Your task to perform on an android device: open device folders in google photos Image 0: 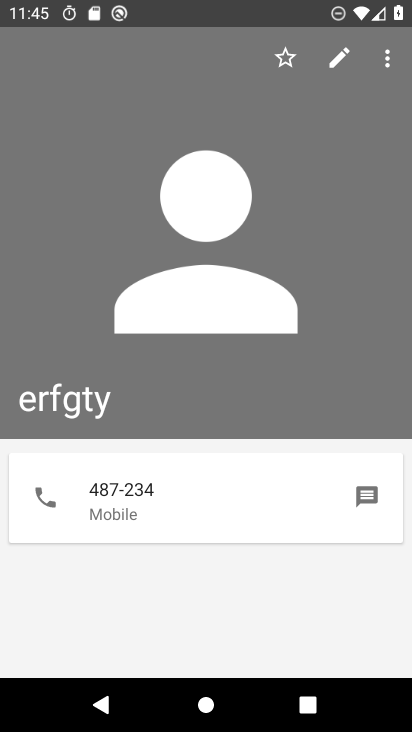
Step 0: press home button
Your task to perform on an android device: open device folders in google photos Image 1: 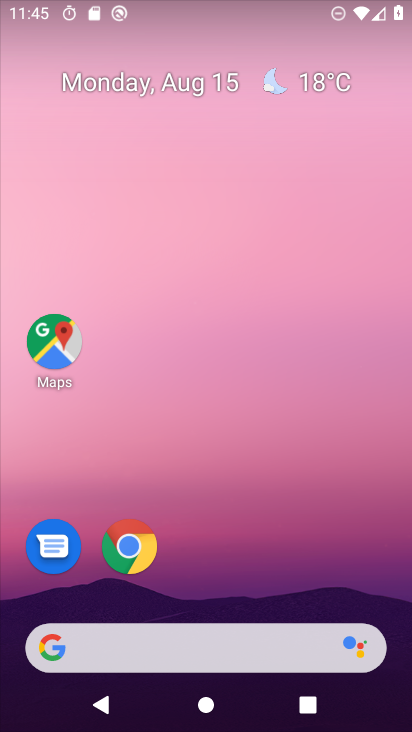
Step 1: drag from (239, 617) to (225, 141)
Your task to perform on an android device: open device folders in google photos Image 2: 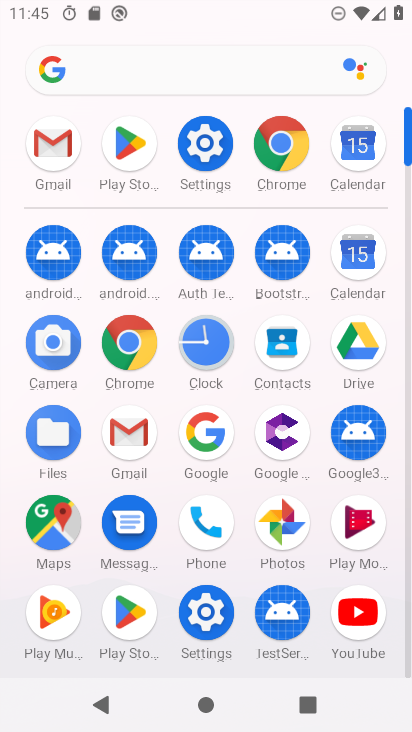
Step 2: click (282, 523)
Your task to perform on an android device: open device folders in google photos Image 3: 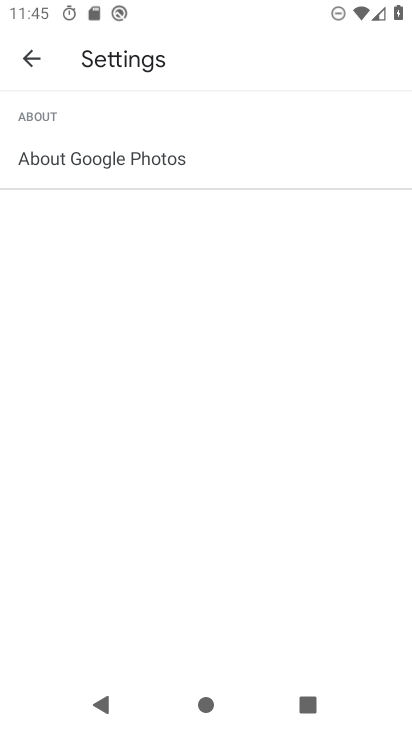
Step 3: click (31, 54)
Your task to perform on an android device: open device folders in google photos Image 4: 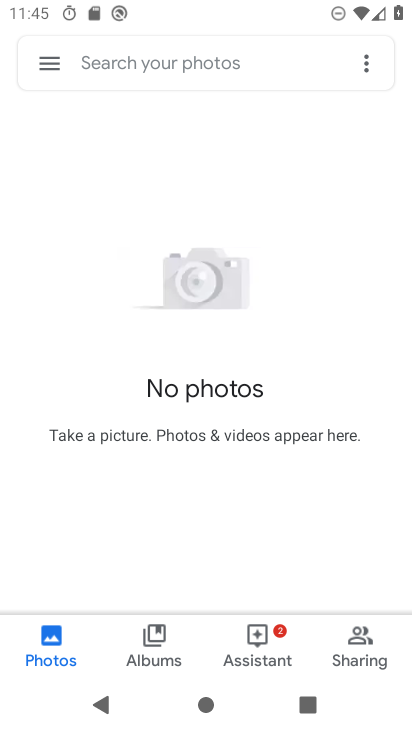
Step 4: click (48, 58)
Your task to perform on an android device: open device folders in google photos Image 5: 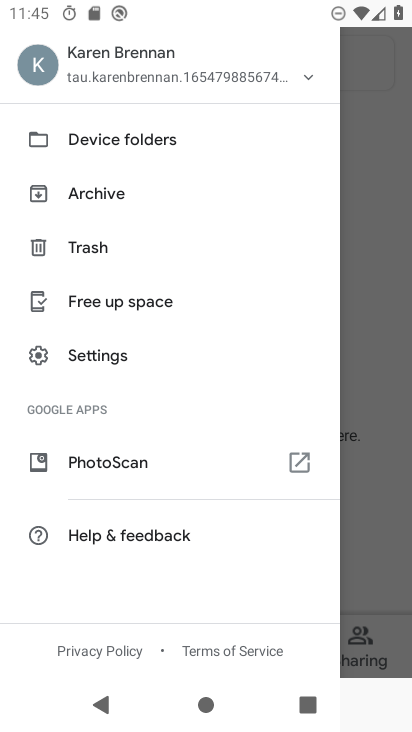
Step 5: click (114, 134)
Your task to perform on an android device: open device folders in google photos Image 6: 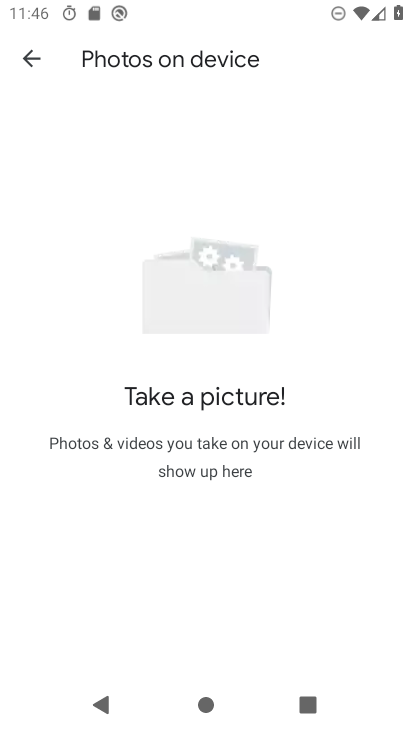
Step 6: task complete